Your task to perform on an android device: turn off data saver in the chrome app Image 0: 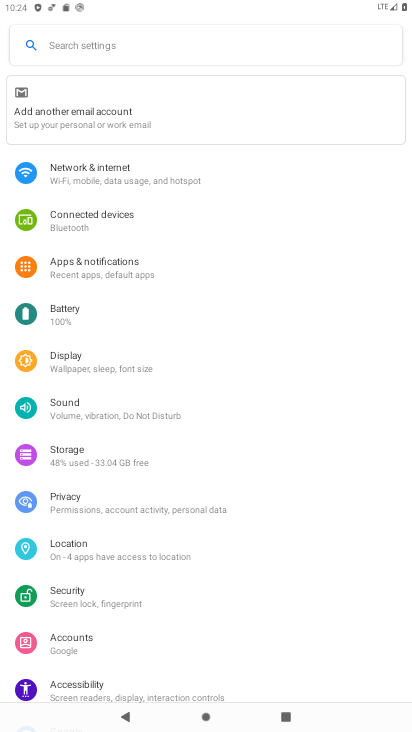
Step 0: press home button
Your task to perform on an android device: turn off data saver in the chrome app Image 1: 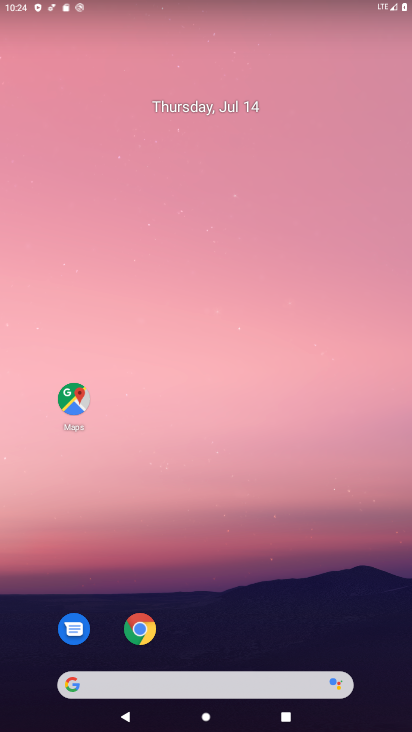
Step 1: click (146, 626)
Your task to perform on an android device: turn off data saver in the chrome app Image 2: 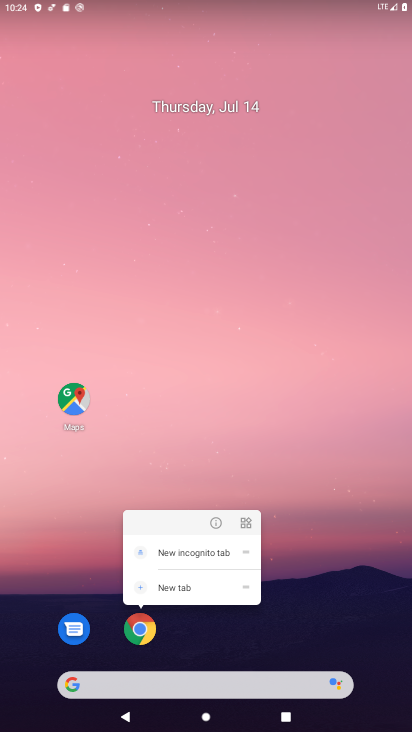
Step 2: click (147, 627)
Your task to perform on an android device: turn off data saver in the chrome app Image 3: 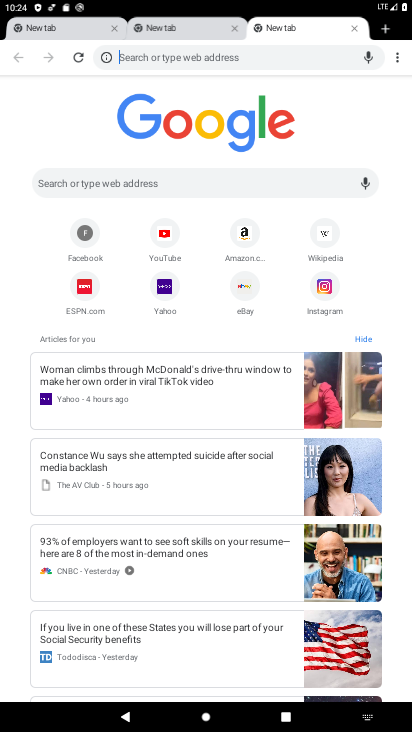
Step 3: drag from (400, 48) to (322, 261)
Your task to perform on an android device: turn off data saver in the chrome app Image 4: 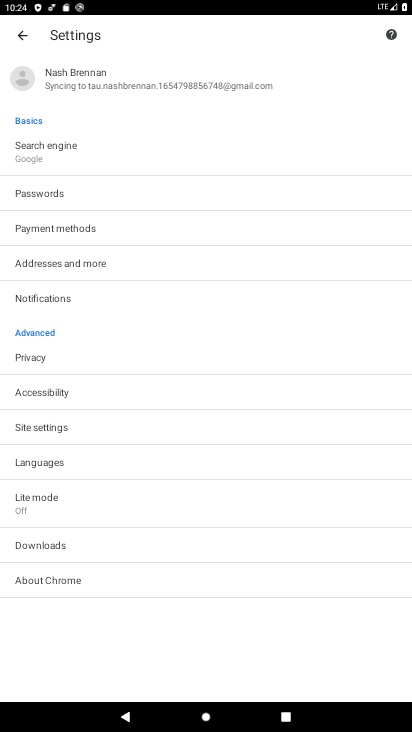
Step 4: click (86, 511)
Your task to perform on an android device: turn off data saver in the chrome app Image 5: 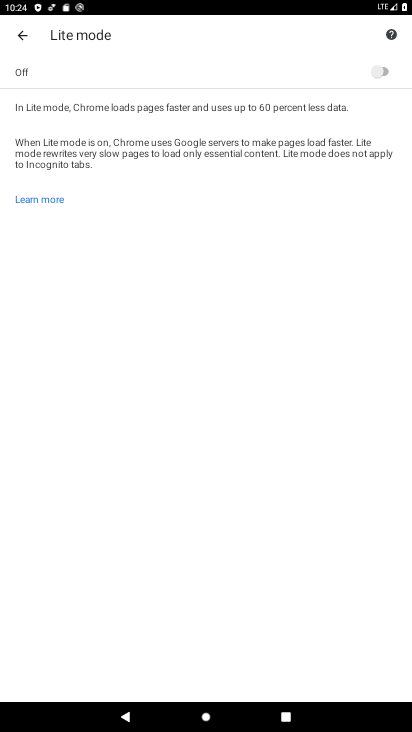
Step 5: task complete